Your task to perform on an android device: View the shopping cart on bestbuy.com. Search for rayovac triple a on bestbuy.com, select the first entry, add it to the cart, then select checkout. Image 0: 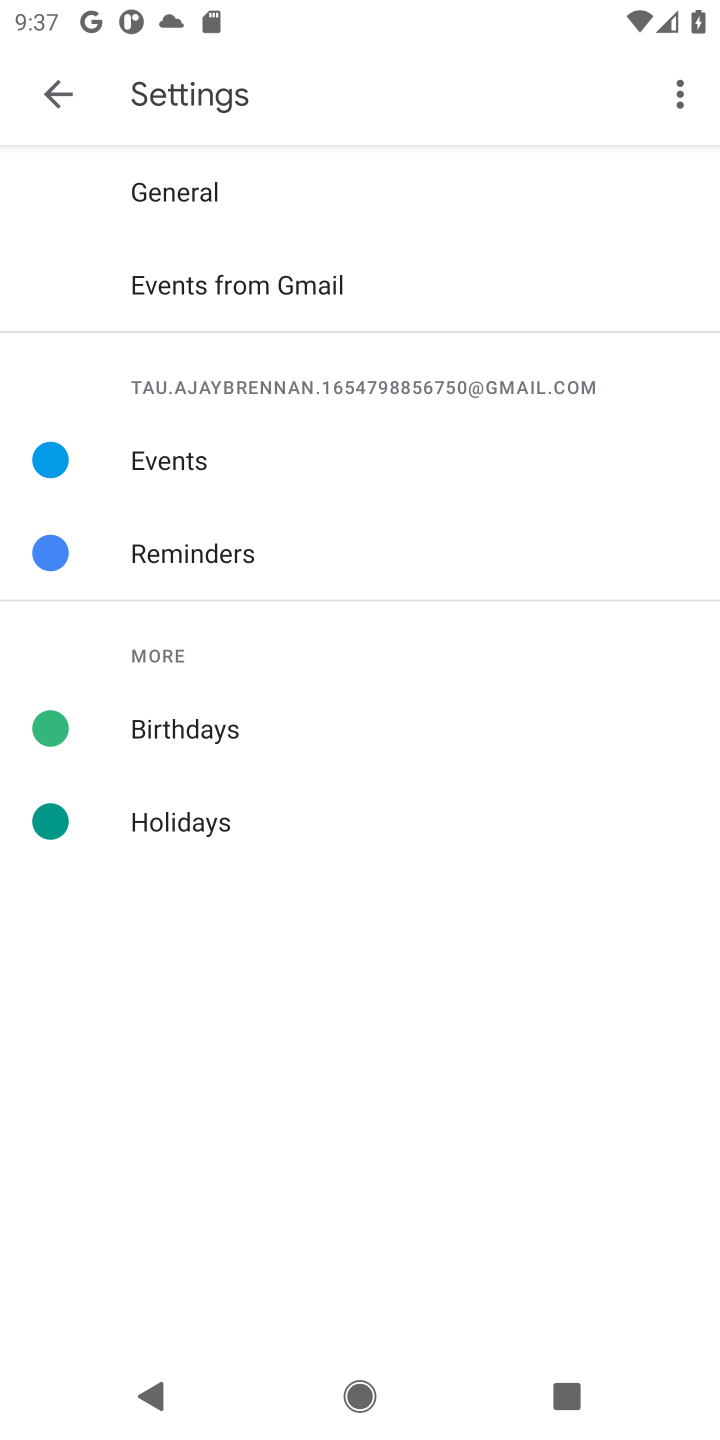
Step 0: press home button
Your task to perform on an android device: View the shopping cart on bestbuy.com. Search for rayovac triple a on bestbuy.com, select the first entry, add it to the cart, then select checkout. Image 1: 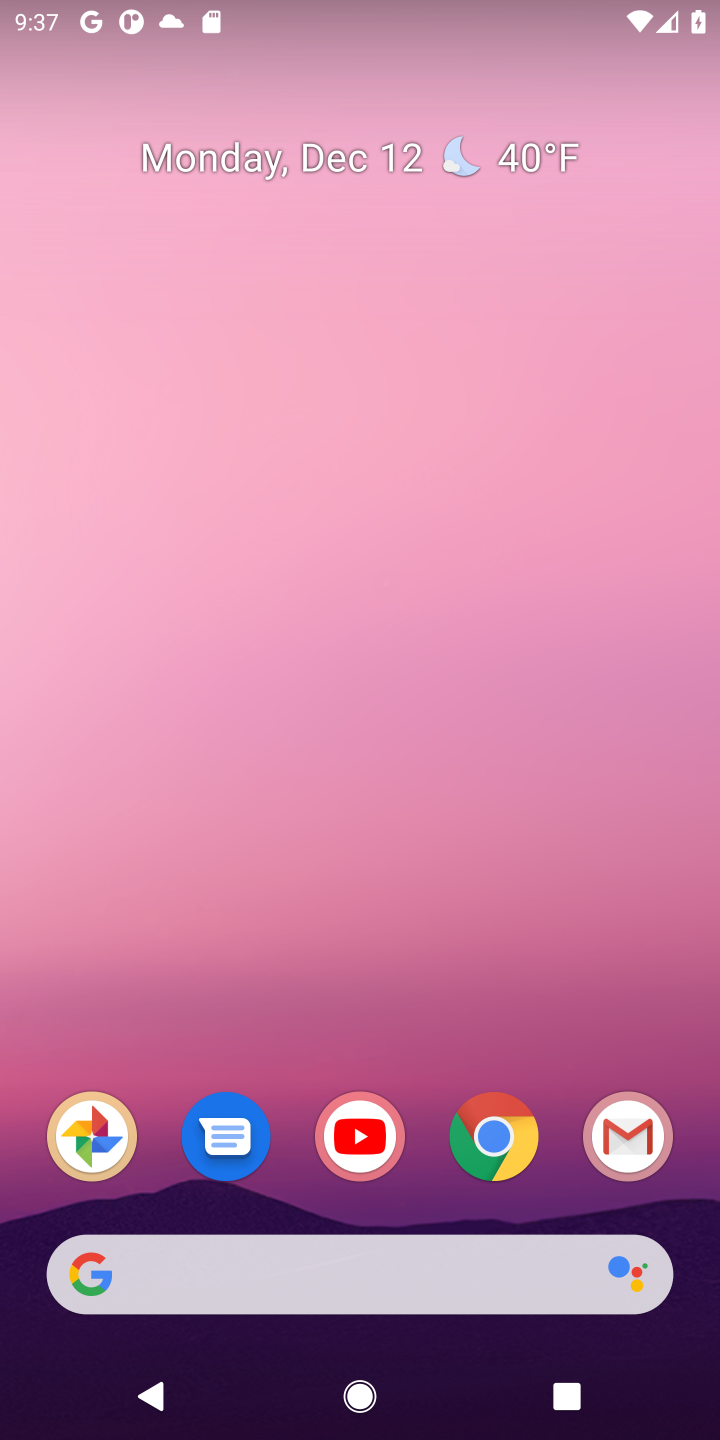
Step 1: click (484, 1150)
Your task to perform on an android device: View the shopping cart on bestbuy.com. Search for rayovac triple a on bestbuy.com, select the first entry, add it to the cart, then select checkout. Image 2: 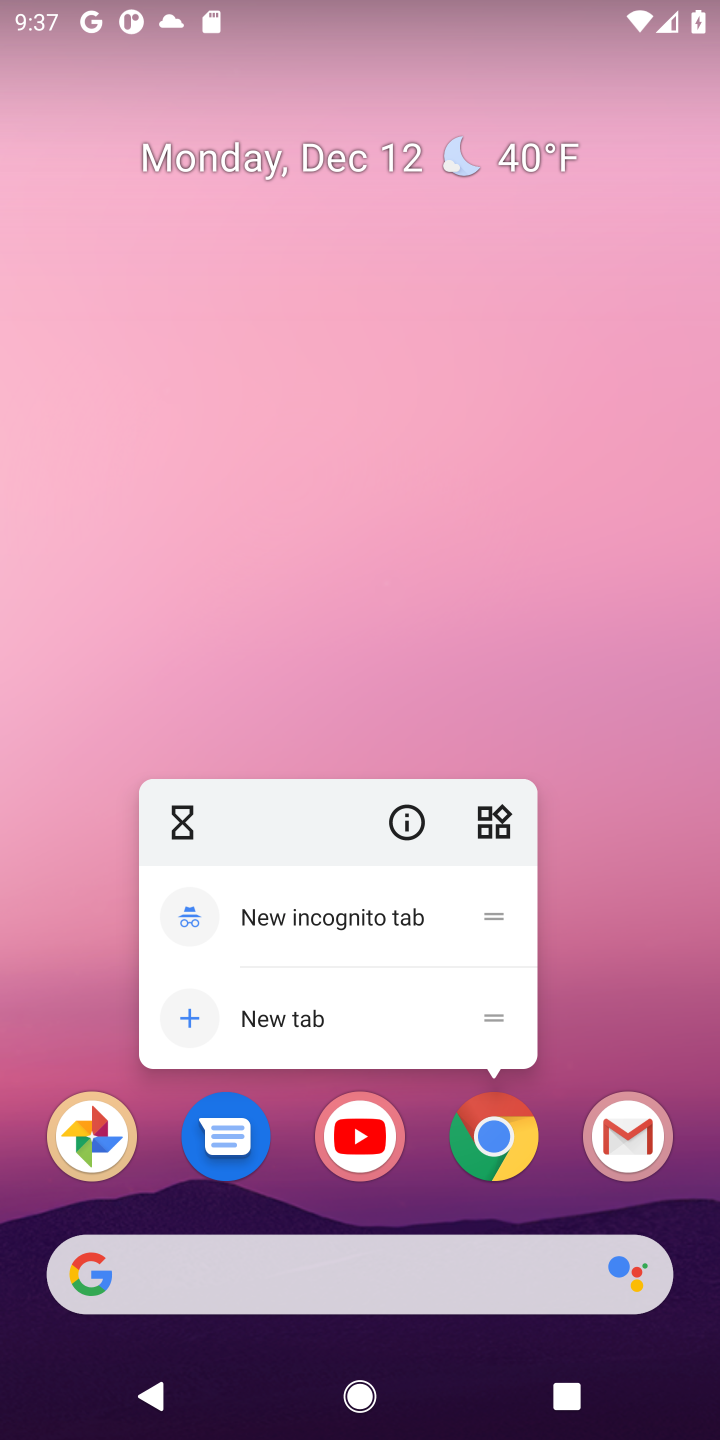
Step 2: click (492, 1146)
Your task to perform on an android device: View the shopping cart on bestbuy.com. Search for rayovac triple a on bestbuy.com, select the first entry, add it to the cart, then select checkout. Image 3: 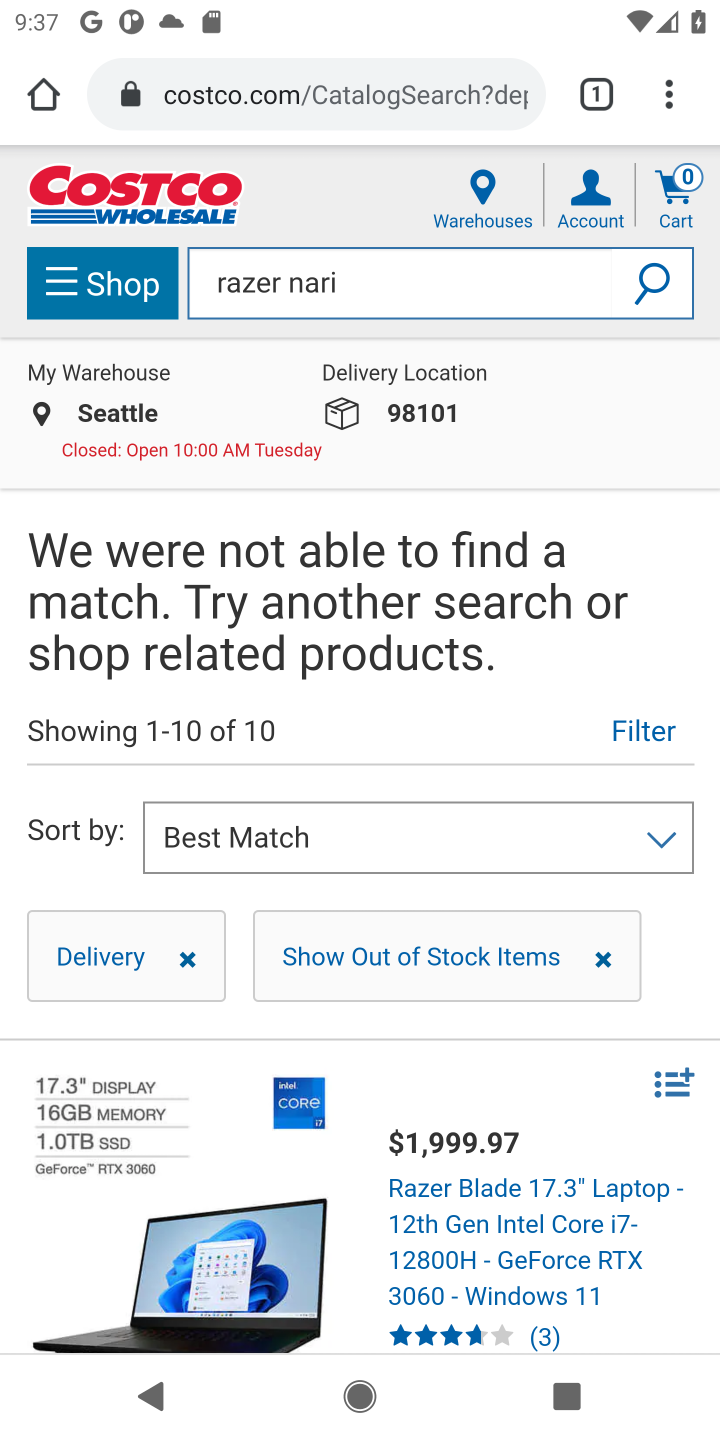
Step 3: click (330, 92)
Your task to perform on an android device: View the shopping cart on bestbuy.com. Search for rayovac triple a on bestbuy.com, select the first entry, add it to the cart, then select checkout. Image 4: 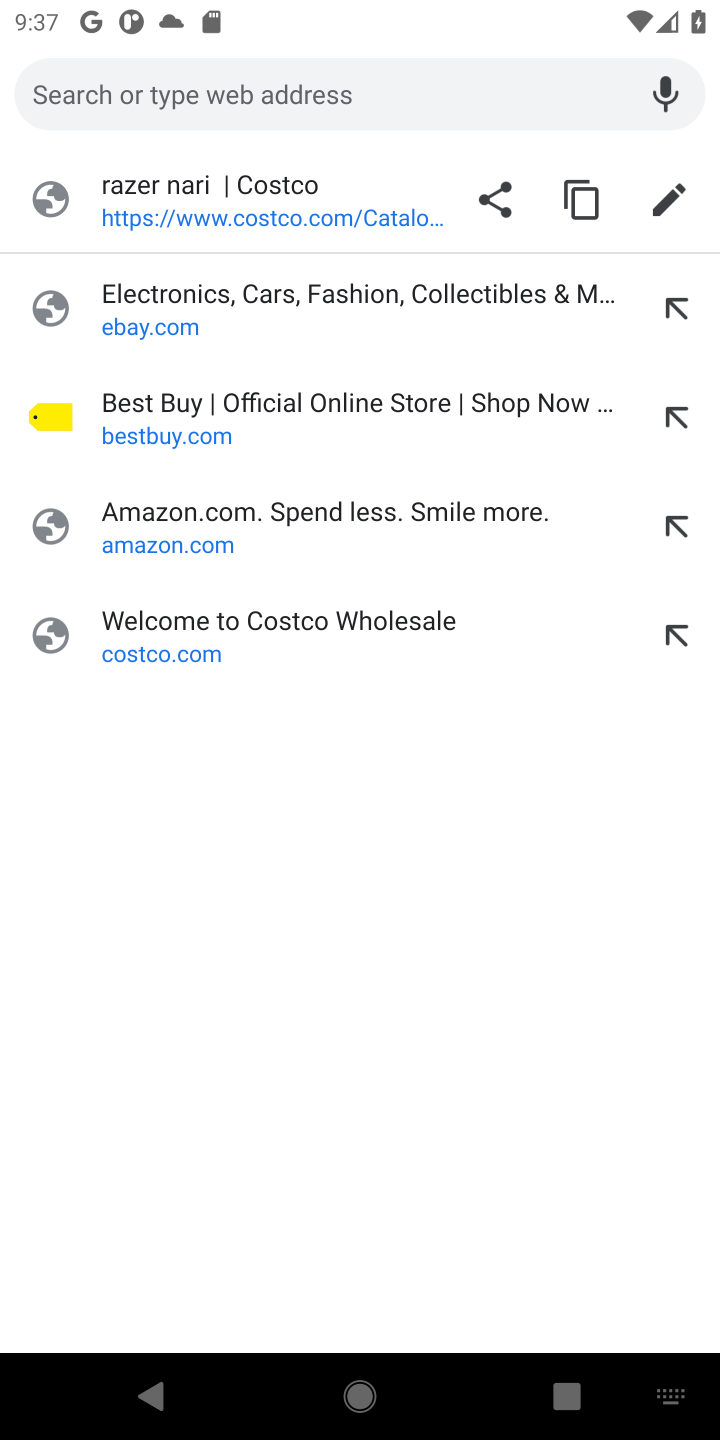
Step 4: click (157, 423)
Your task to perform on an android device: View the shopping cart on bestbuy.com. Search for rayovac triple a on bestbuy.com, select the first entry, add it to the cart, then select checkout. Image 5: 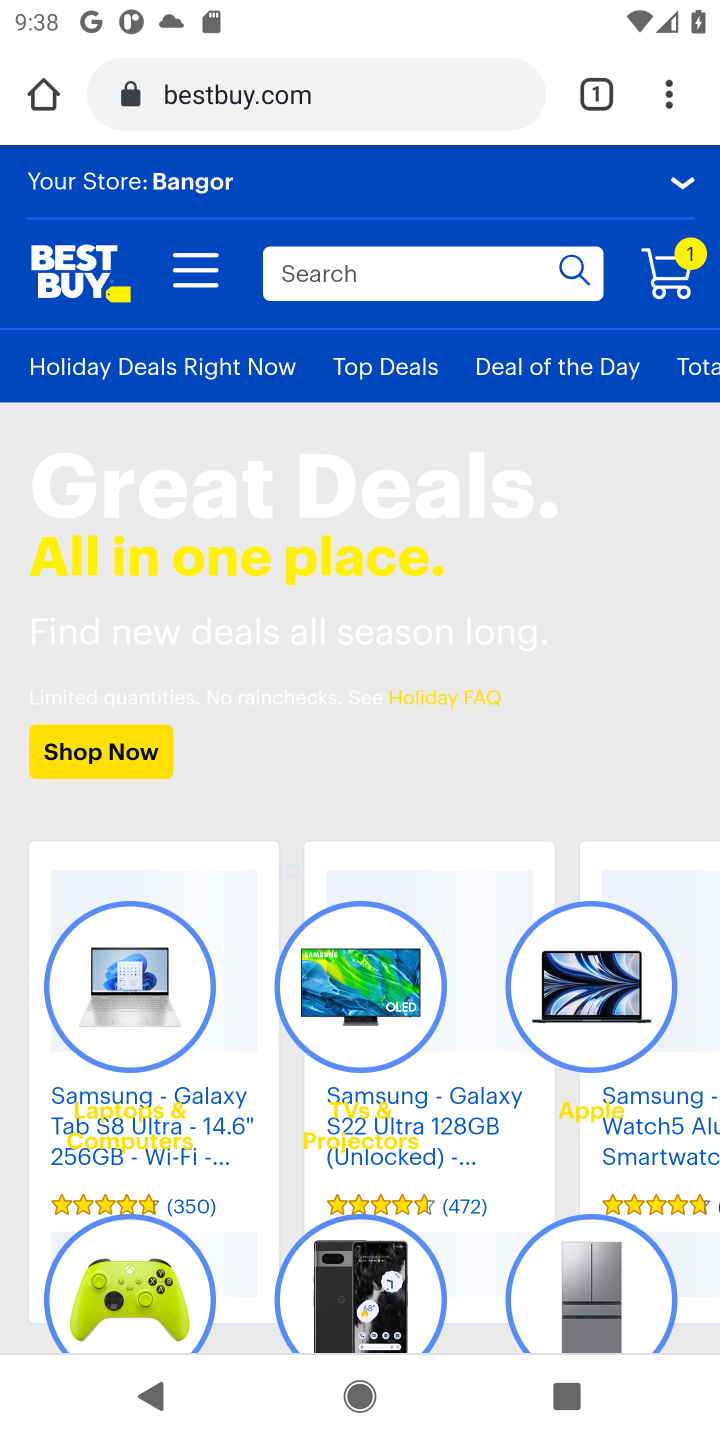
Step 5: click (670, 279)
Your task to perform on an android device: View the shopping cart on bestbuy.com. Search for rayovac triple a on bestbuy.com, select the first entry, add it to the cart, then select checkout. Image 6: 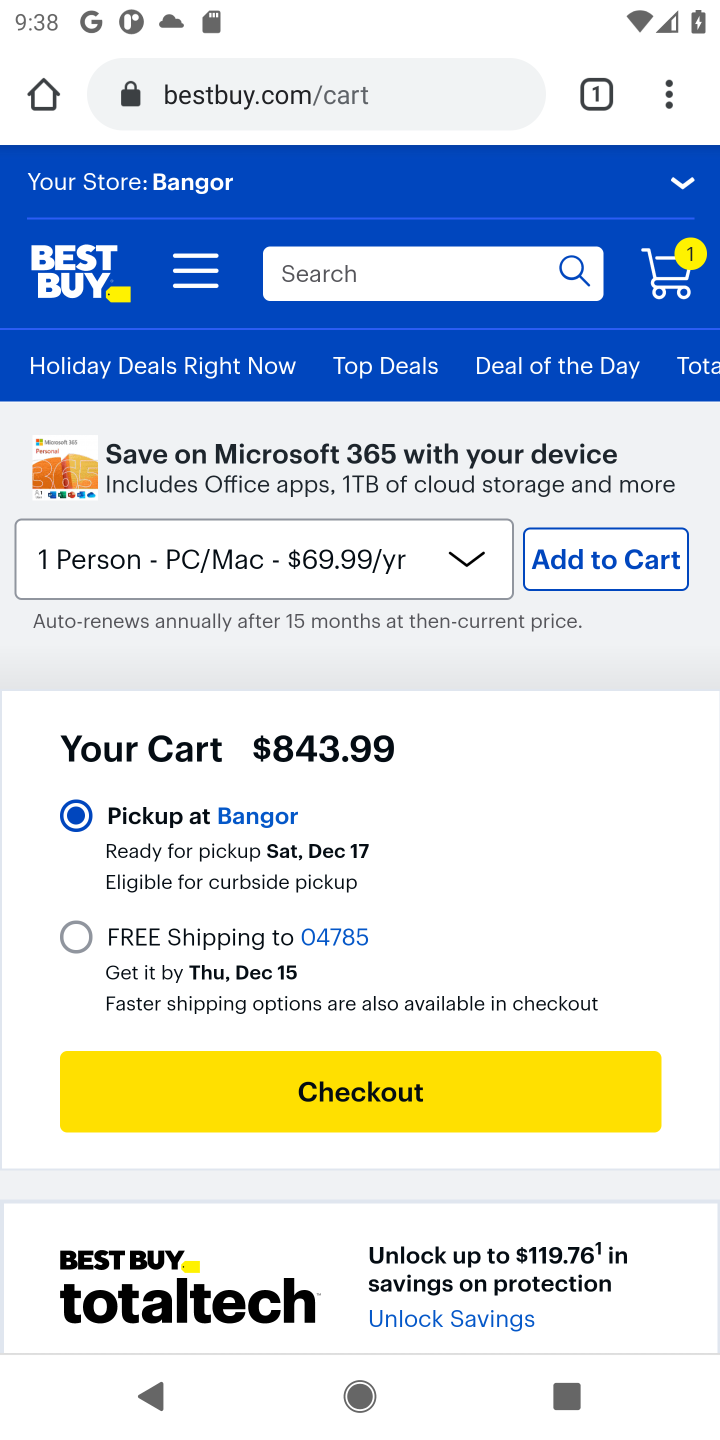
Step 6: drag from (546, 1049) to (553, 588)
Your task to perform on an android device: View the shopping cart on bestbuy.com. Search for rayovac triple a on bestbuy.com, select the first entry, add it to the cart, then select checkout. Image 7: 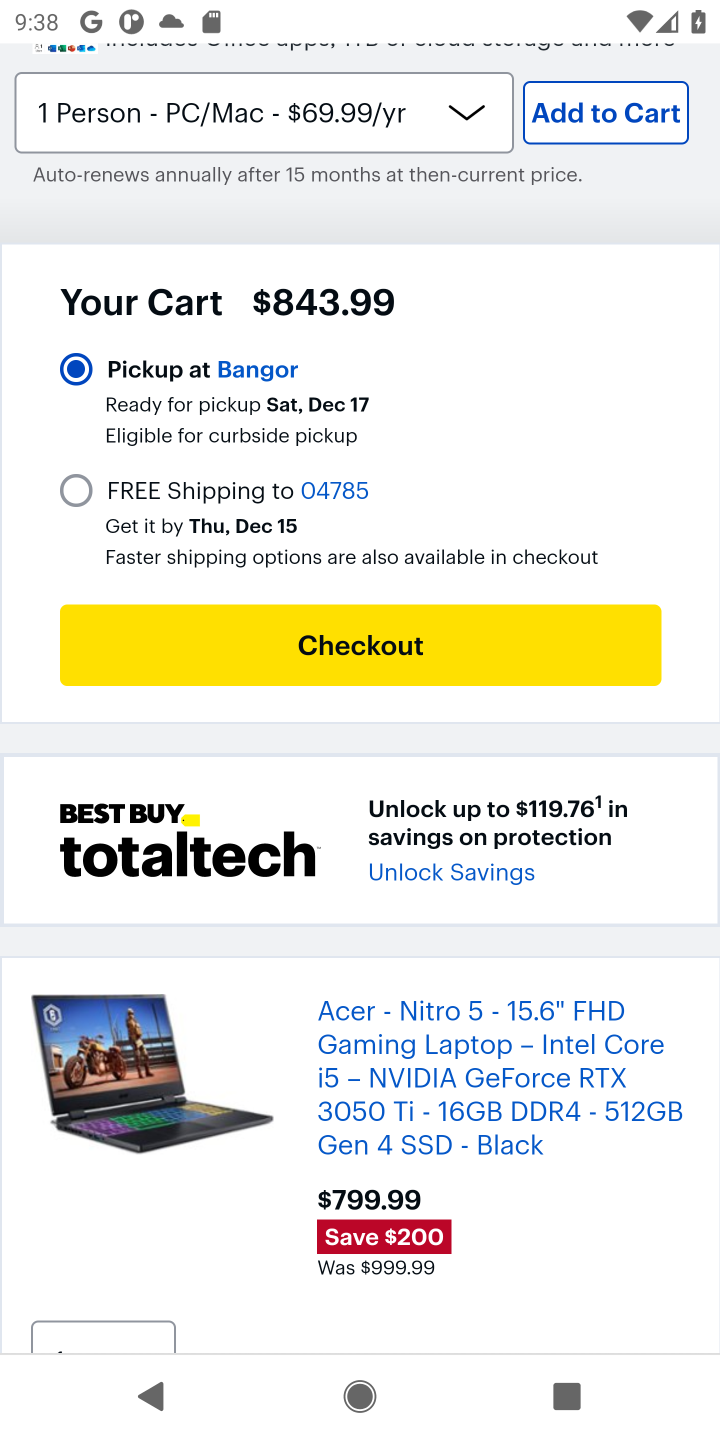
Step 7: drag from (330, 380) to (374, 937)
Your task to perform on an android device: View the shopping cart on bestbuy.com. Search for rayovac triple a on bestbuy.com, select the first entry, add it to the cart, then select checkout. Image 8: 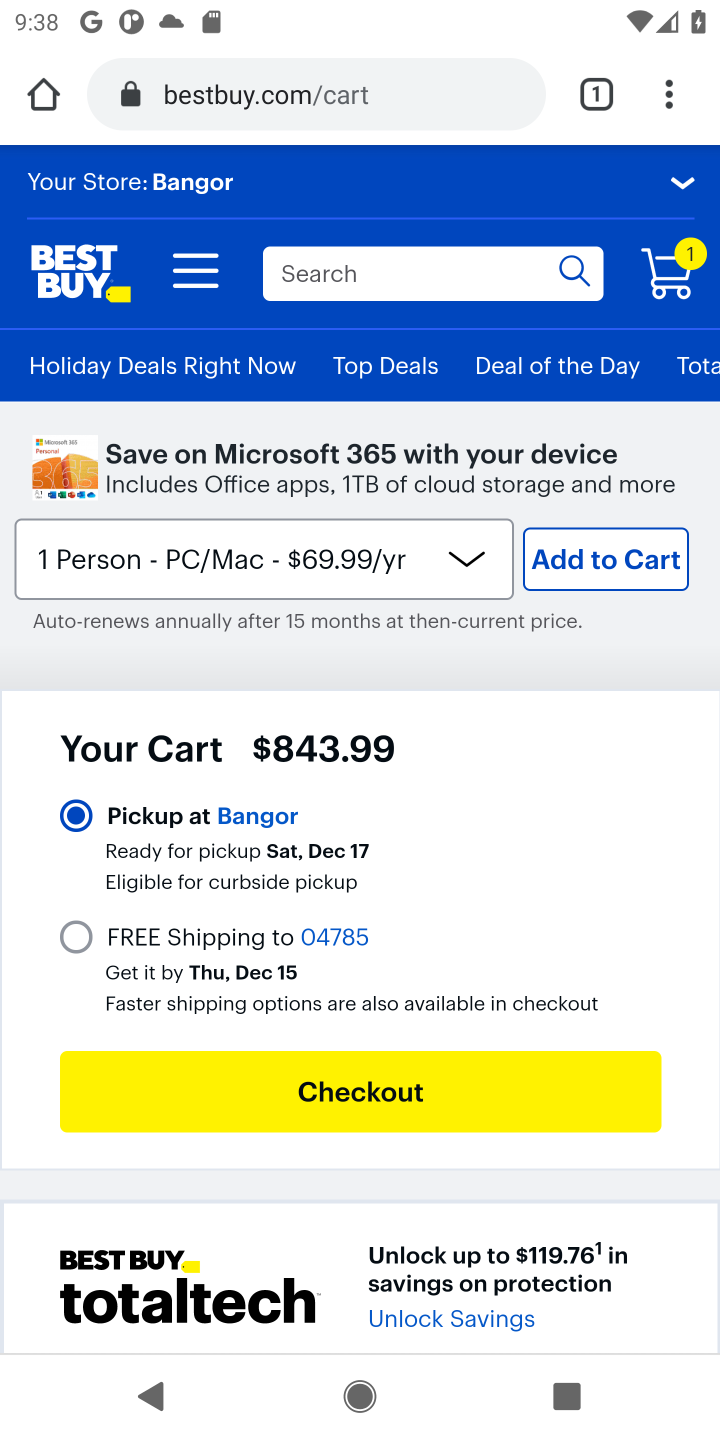
Step 8: click (317, 267)
Your task to perform on an android device: View the shopping cart on bestbuy.com. Search for rayovac triple a on bestbuy.com, select the first entry, add it to the cart, then select checkout. Image 9: 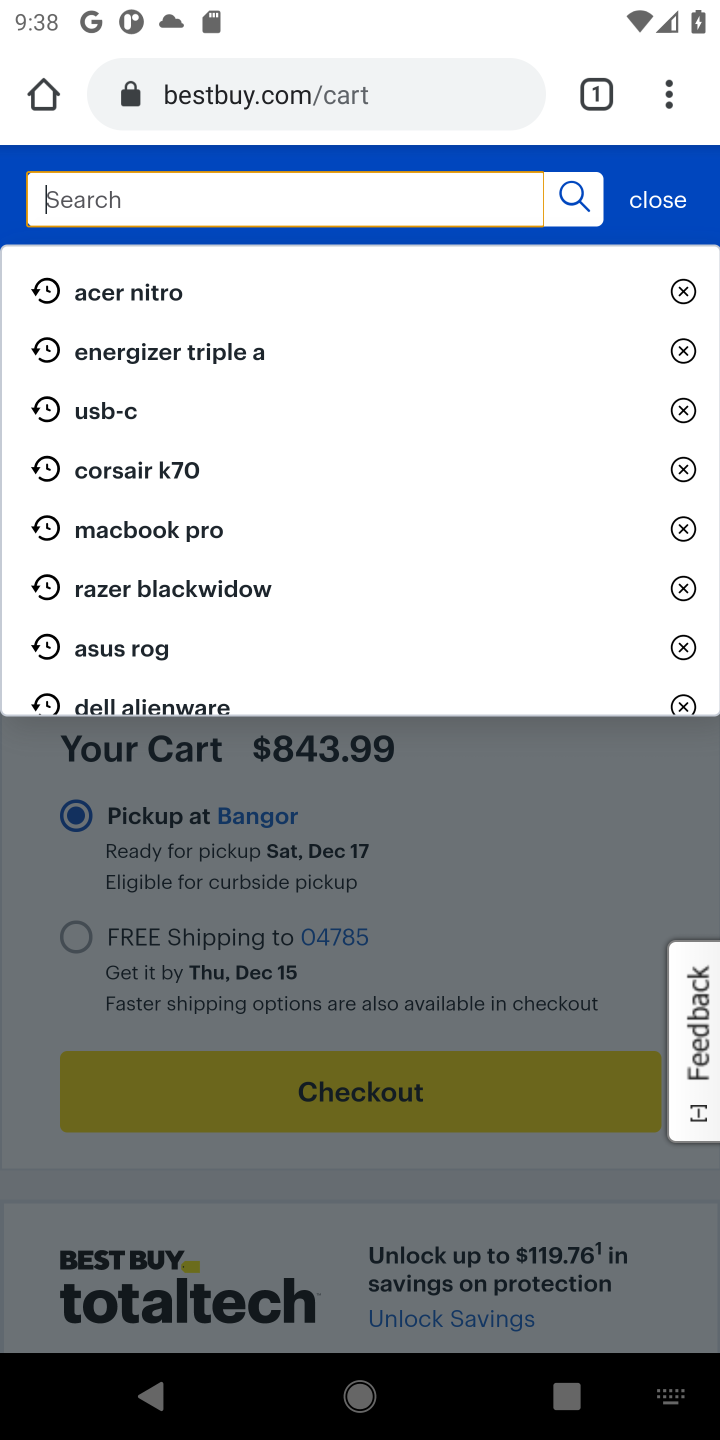
Step 9: type " rayovac triple a"
Your task to perform on an android device: View the shopping cart on bestbuy.com. Search for rayovac triple a on bestbuy.com, select the first entry, add it to the cart, then select checkout. Image 10: 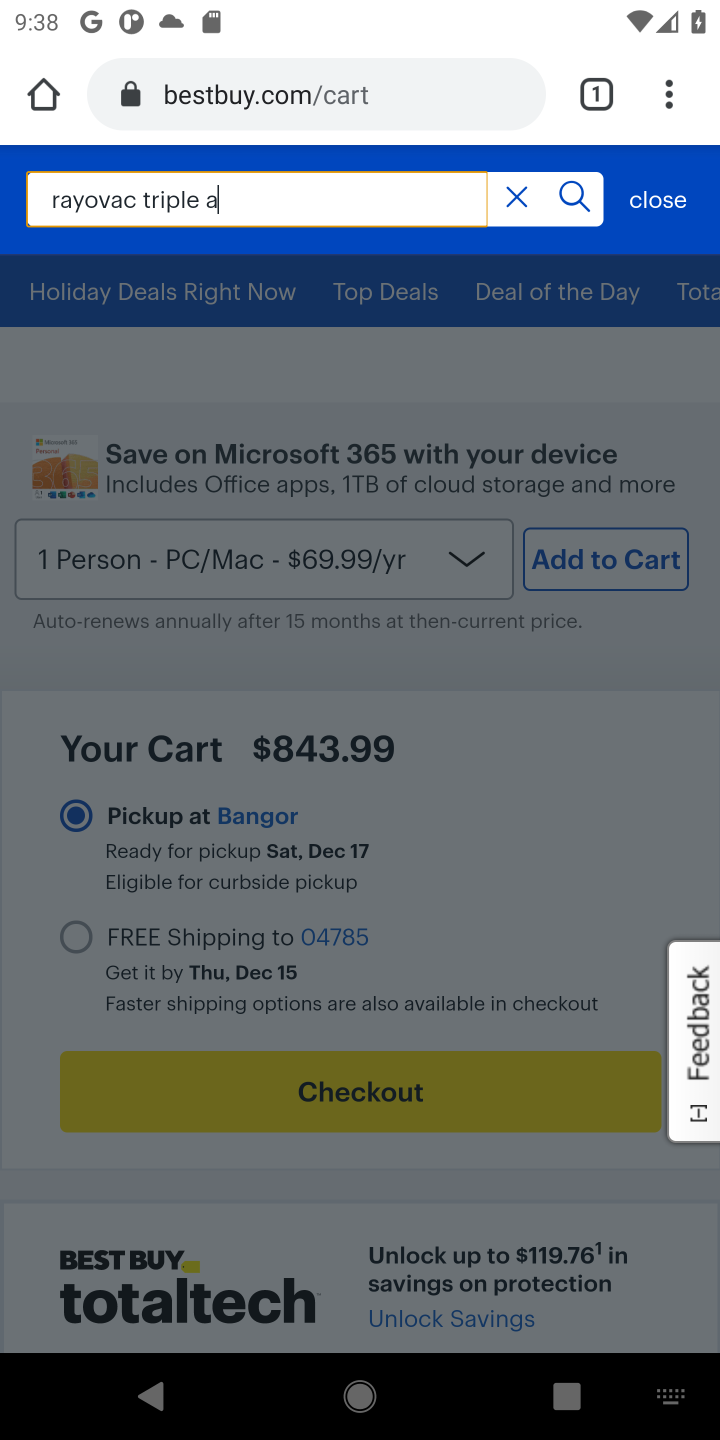
Step 10: click (576, 203)
Your task to perform on an android device: View the shopping cart on bestbuy.com. Search for rayovac triple a on bestbuy.com, select the first entry, add it to the cart, then select checkout. Image 11: 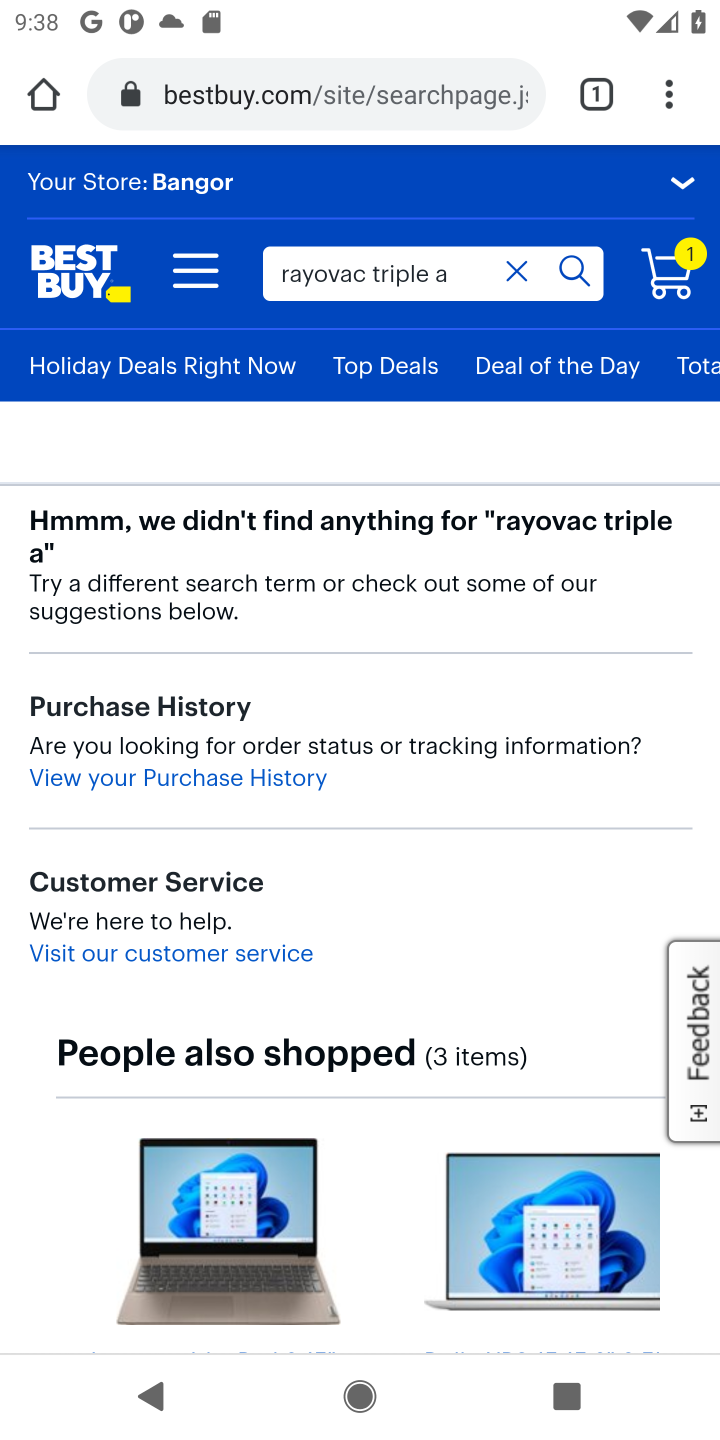
Step 11: task complete